Your task to perform on an android device: Open calendar and show me the second week of next month Image 0: 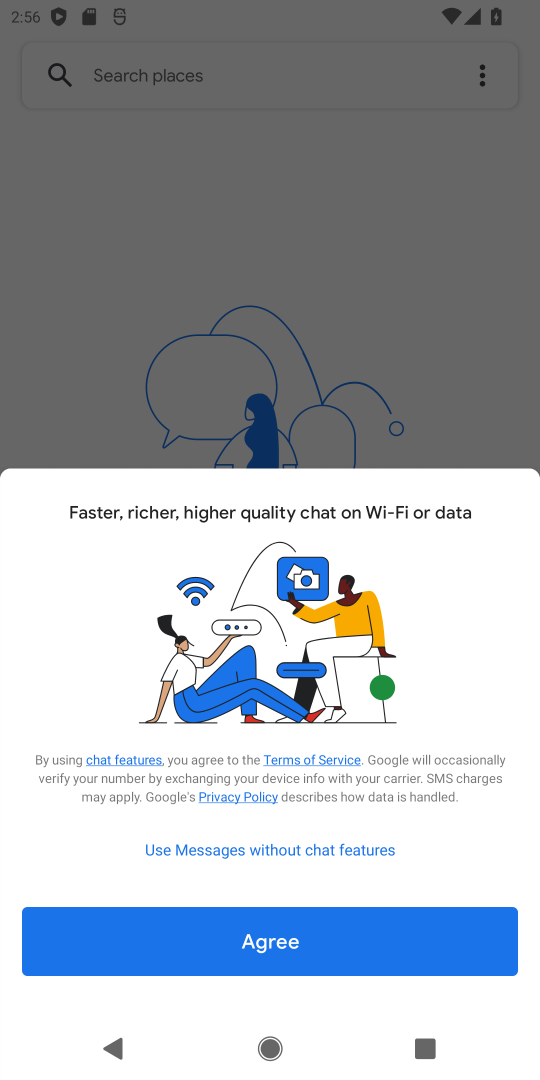
Step 0: press home button
Your task to perform on an android device: Open calendar and show me the second week of next month Image 1: 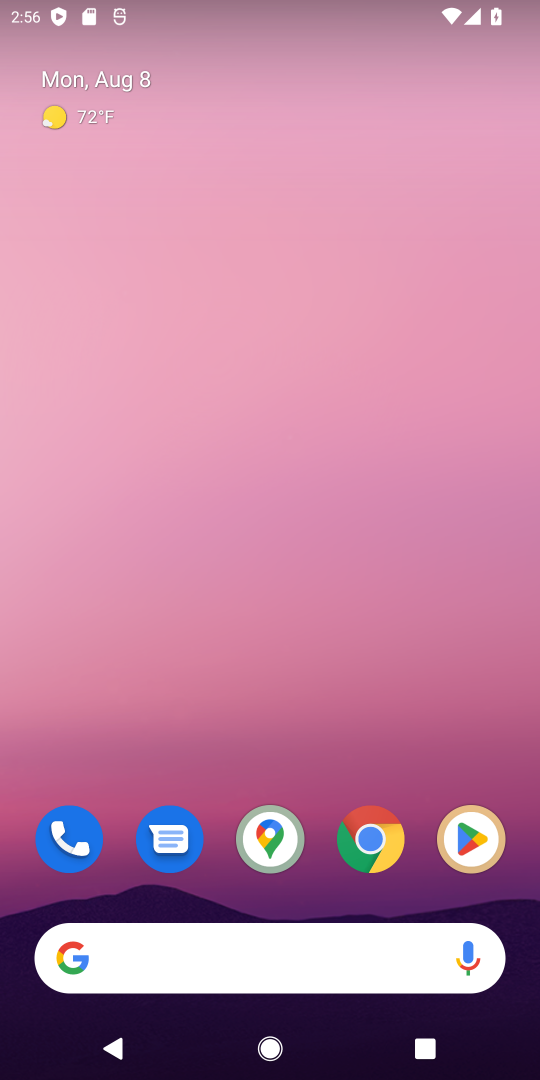
Step 1: drag from (423, 753) to (426, 177)
Your task to perform on an android device: Open calendar and show me the second week of next month Image 2: 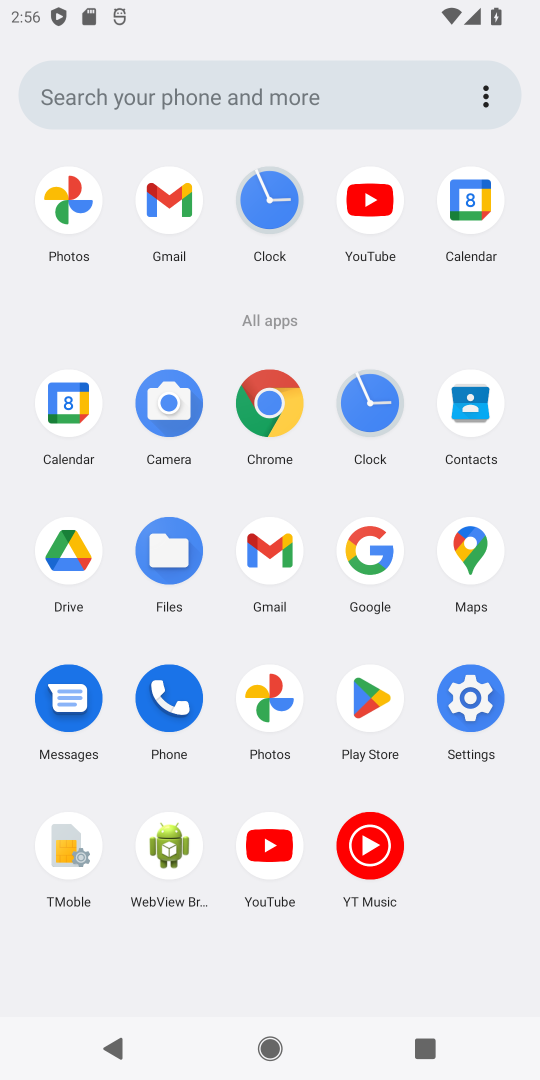
Step 2: click (57, 413)
Your task to perform on an android device: Open calendar and show me the second week of next month Image 3: 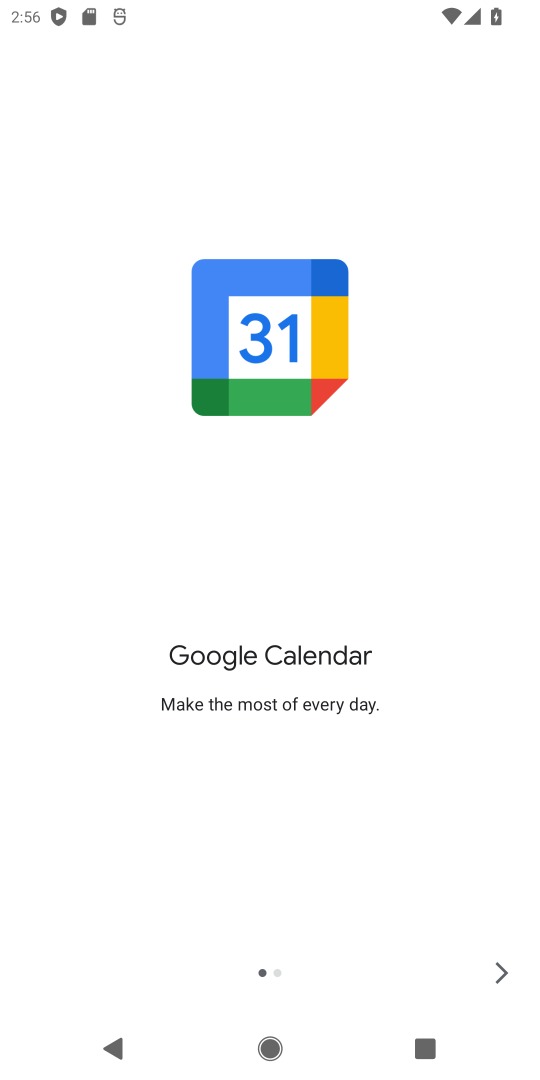
Step 3: click (514, 970)
Your task to perform on an android device: Open calendar and show me the second week of next month Image 4: 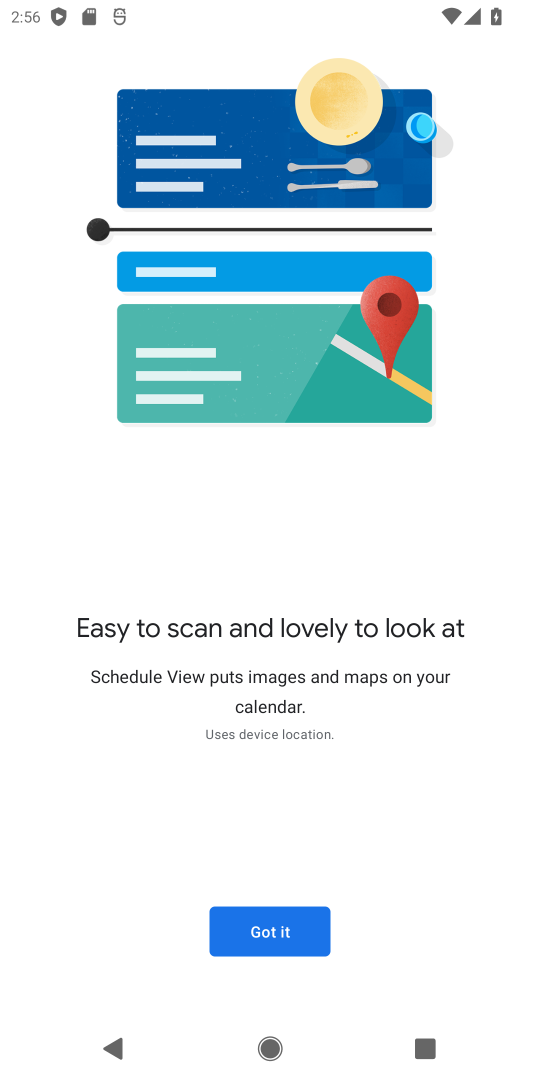
Step 4: click (260, 933)
Your task to perform on an android device: Open calendar and show me the second week of next month Image 5: 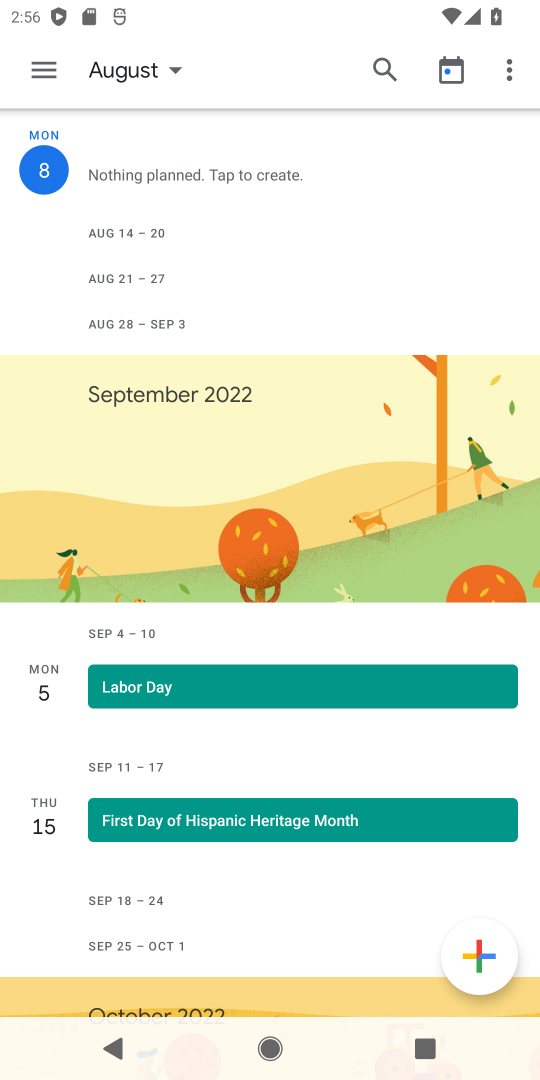
Step 5: click (174, 71)
Your task to perform on an android device: Open calendar and show me the second week of next month Image 6: 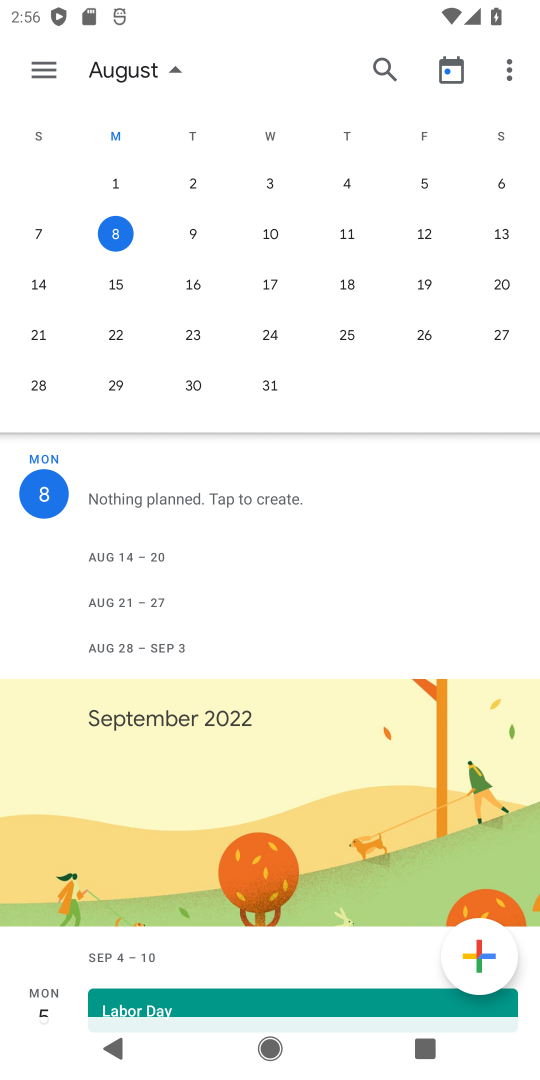
Step 6: drag from (514, 205) to (7, 205)
Your task to perform on an android device: Open calendar and show me the second week of next month Image 7: 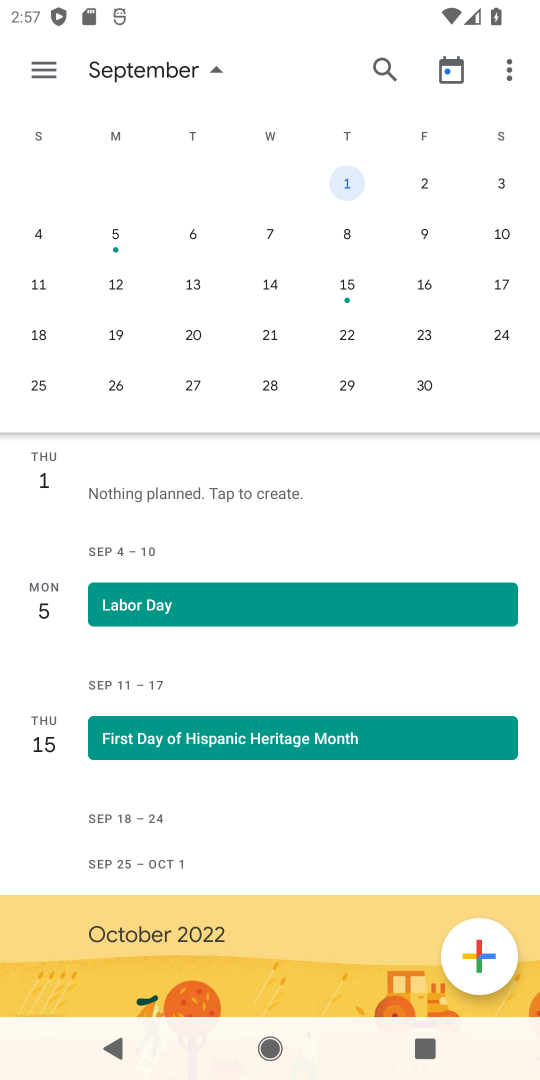
Step 7: click (111, 230)
Your task to perform on an android device: Open calendar and show me the second week of next month Image 8: 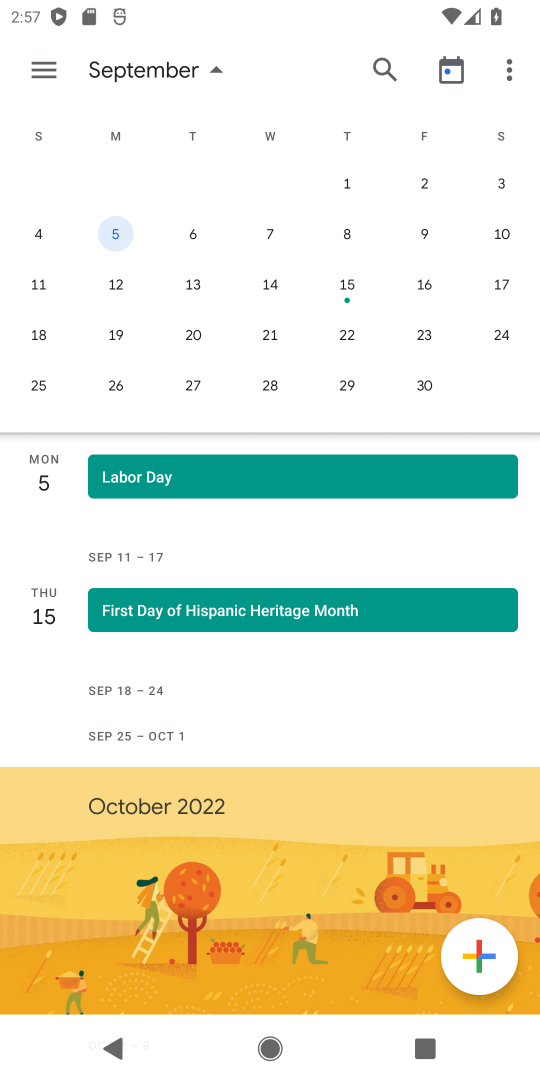
Step 8: task complete